Your task to perform on an android device: turn on the 24-hour format for clock Image 0: 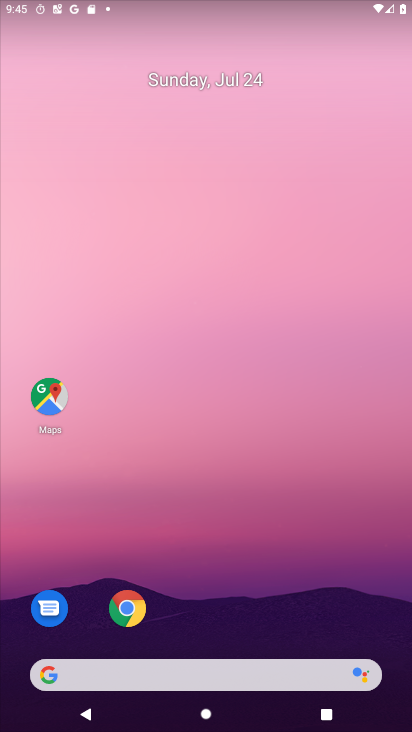
Step 0: drag from (176, 624) to (284, 200)
Your task to perform on an android device: turn on the 24-hour format for clock Image 1: 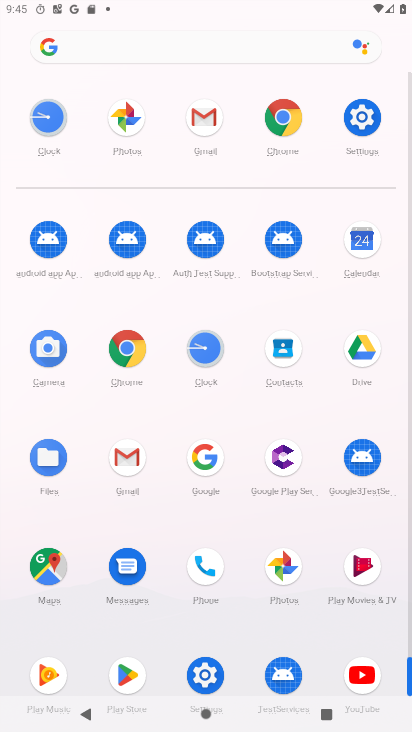
Step 1: click (31, 131)
Your task to perform on an android device: turn on the 24-hour format for clock Image 2: 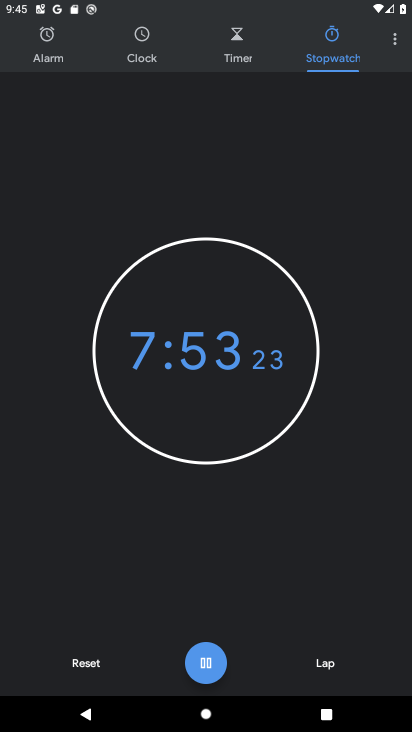
Step 2: click (387, 42)
Your task to perform on an android device: turn on the 24-hour format for clock Image 3: 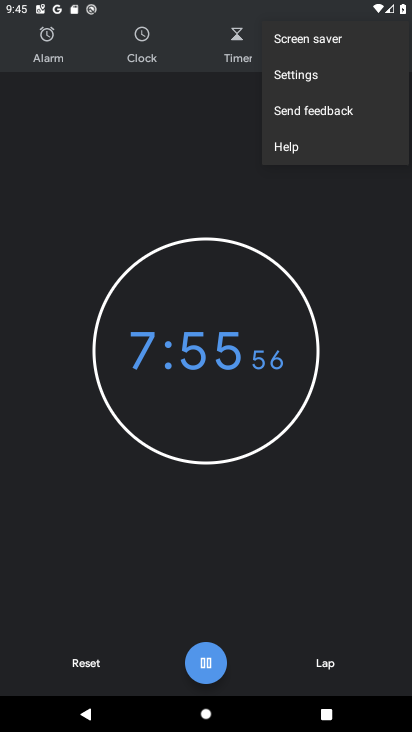
Step 3: click (333, 77)
Your task to perform on an android device: turn on the 24-hour format for clock Image 4: 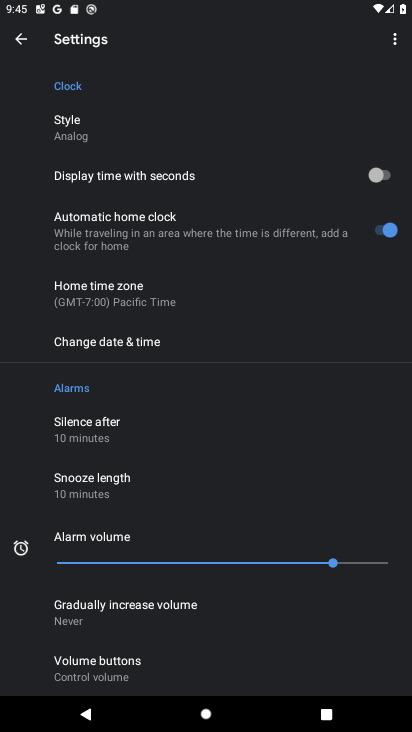
Step 4: drag from (165, 663) to (189, 60)
Your task to perform on an android device: turn on the 24-hour format for clock Image 5: 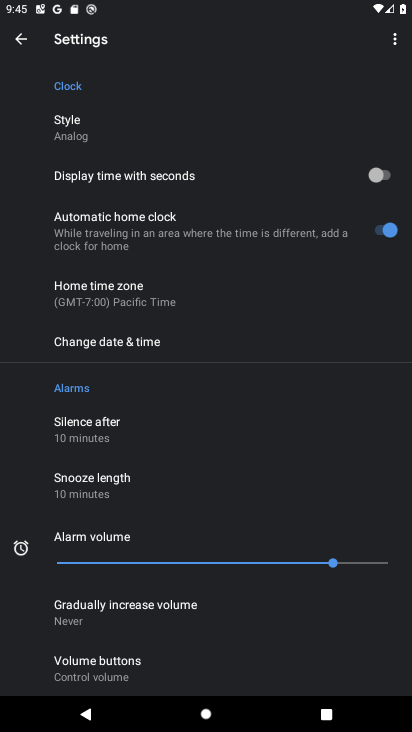
Step 5: click (193, 352)
Your task to perform on an android device: turn on the 24-hour format for clock Image 6: 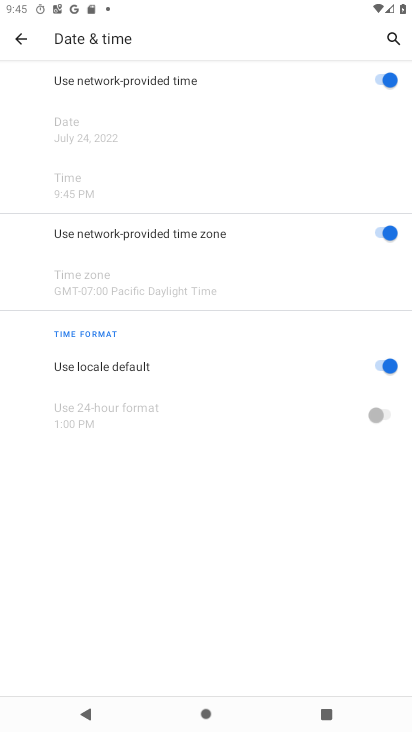
Step 6: click (399, 372)
Your task to perform on an android device: turn on the 24-hour format for clock Image 7: 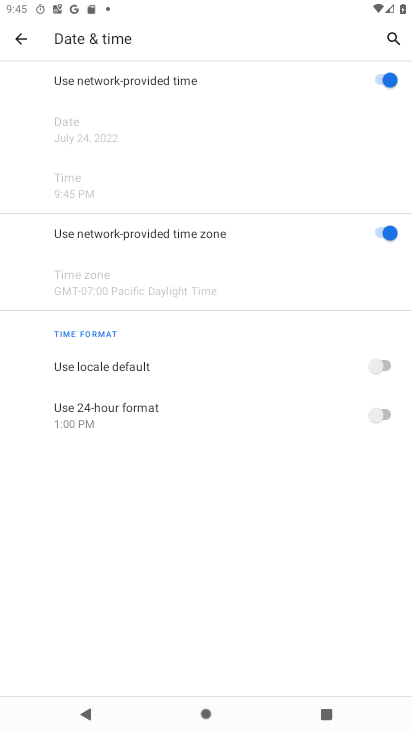
Step 7: click (389, 421)
Your task to perform on an android device: turn on the 24-hour format for clock Image 8: 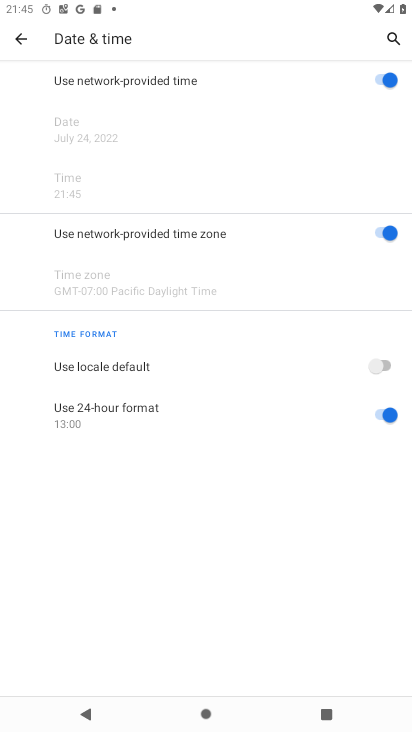
Step 8: task complete